Your task to perform on an android device: turn pop-ups off in chrome Image 0: 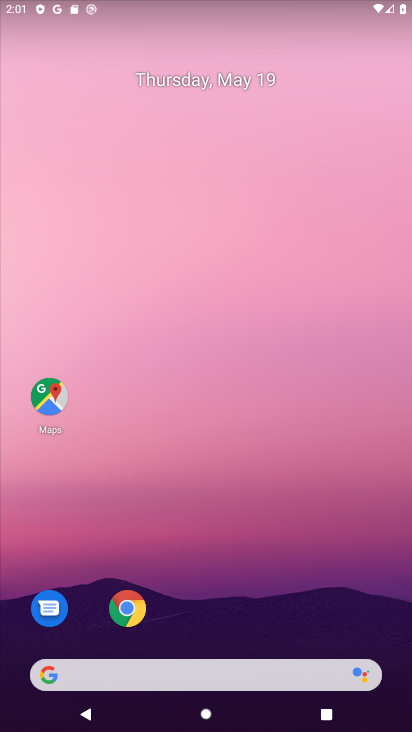
Step 0: drag from (290, 621) to (143, 202)
Your task to perform on an android device: turn pop-ups off in chrome Image 1: 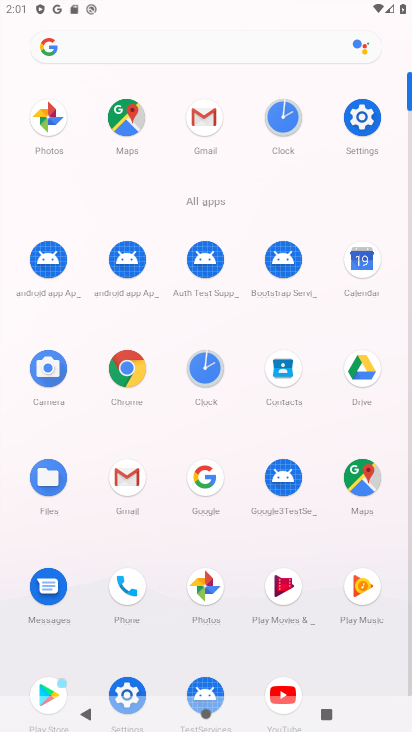
Step 1: click (143, 202)
Your task to perform on an android device: turn pop-ups off in chrome Image 2: 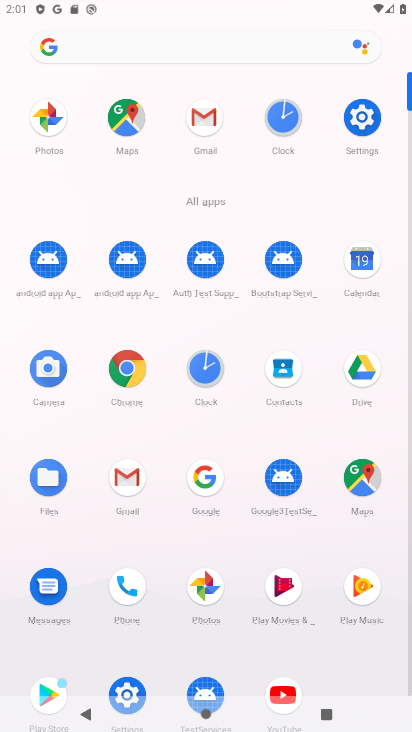
Step 2: click (134, 376)
Your task to perform on an android device: turn pop-ups off in chrome Image 3: 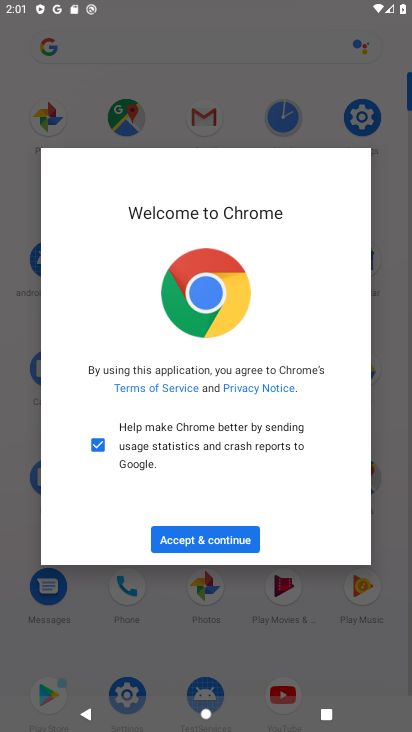
Step 3: click (218, 541)
Your task to perform on an android device: turn pop-ups off in chrome Image 4: 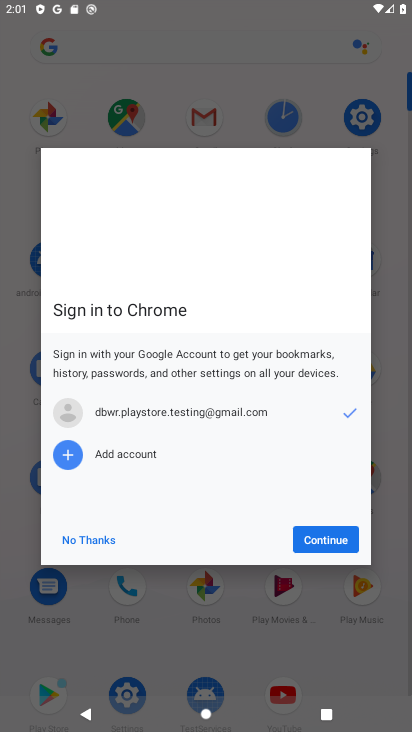
Step 4: click (301, 539)
Your task to perform on an android device: turn pop-ups off in chrome Image 5: 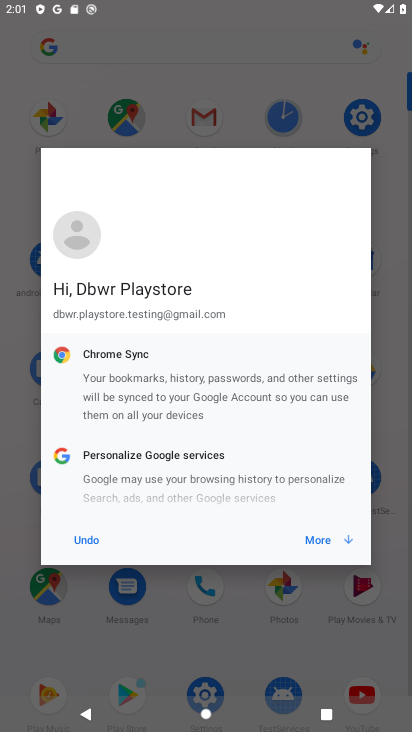
Step 5: click (301, 539)
Your task to perform on an android device: turn pop-ups off in chrome Image 6: 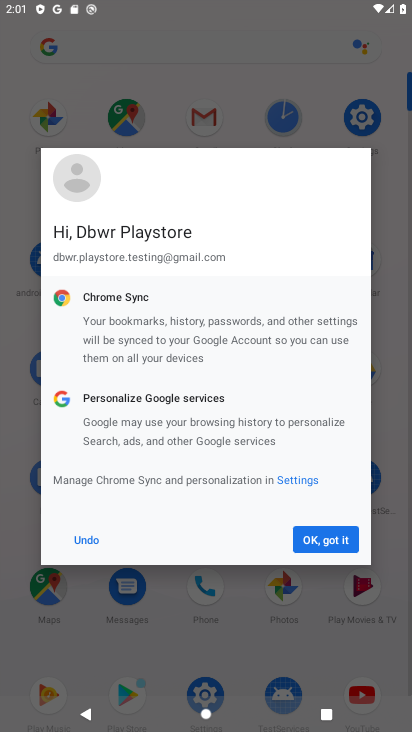
Step 6: click (301, 539)
Your task to perform on an android device: turn pop-ups off in chrome Image 7: 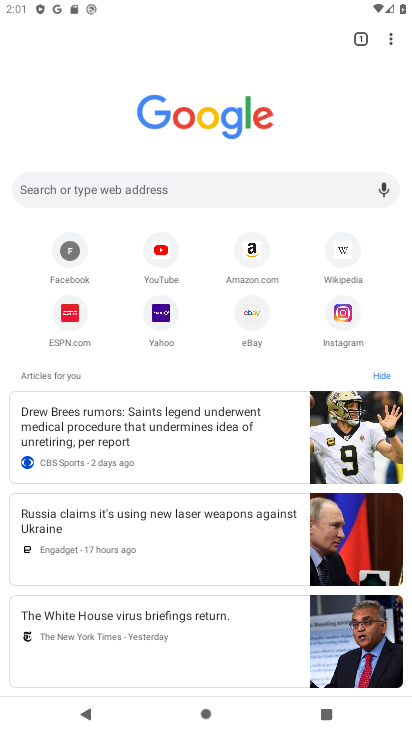
Step 7: click (395, 39)
Your task to perform on an android device: turn pop-ups off in chrome Image 8: 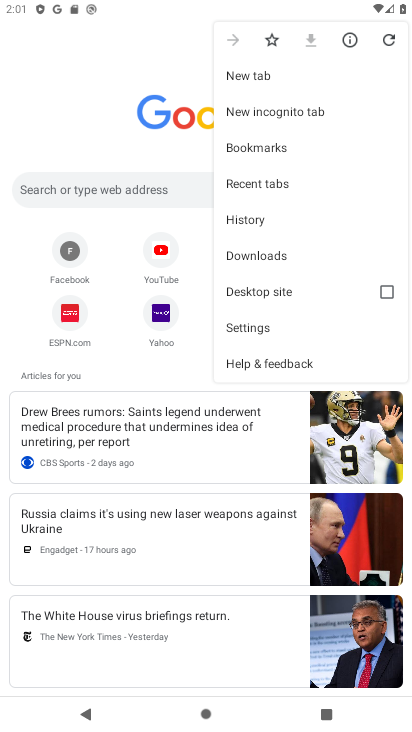
Step 8: click (261, 328)
Your task to perform on an android device: turn pop-ups off in chrome Image 9: 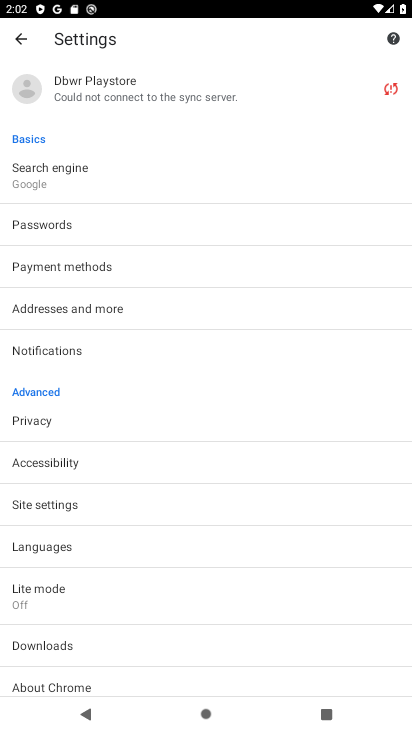
Step 9: click (176, 504)
Your task to perform on an android device: turn pop-ups off in chrome Image 10: 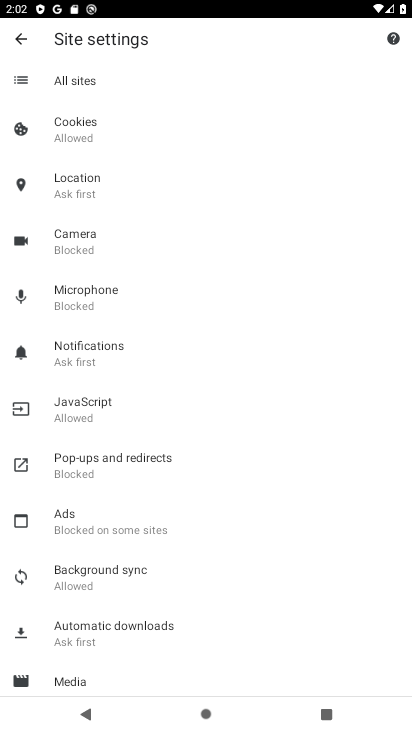
Step 10: click (170, 475)
Your task to perform on an android device: turn pop-ups off in chrome Image 11: 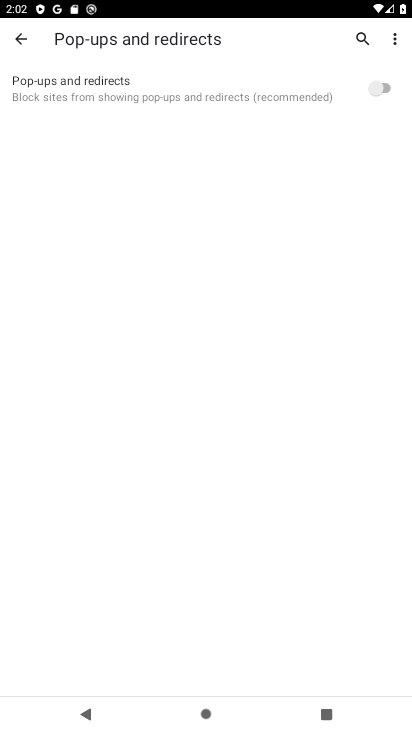
Step 11: task complete